Your task to perform on an android device: uninstall "Facebook Lite" Image 0: 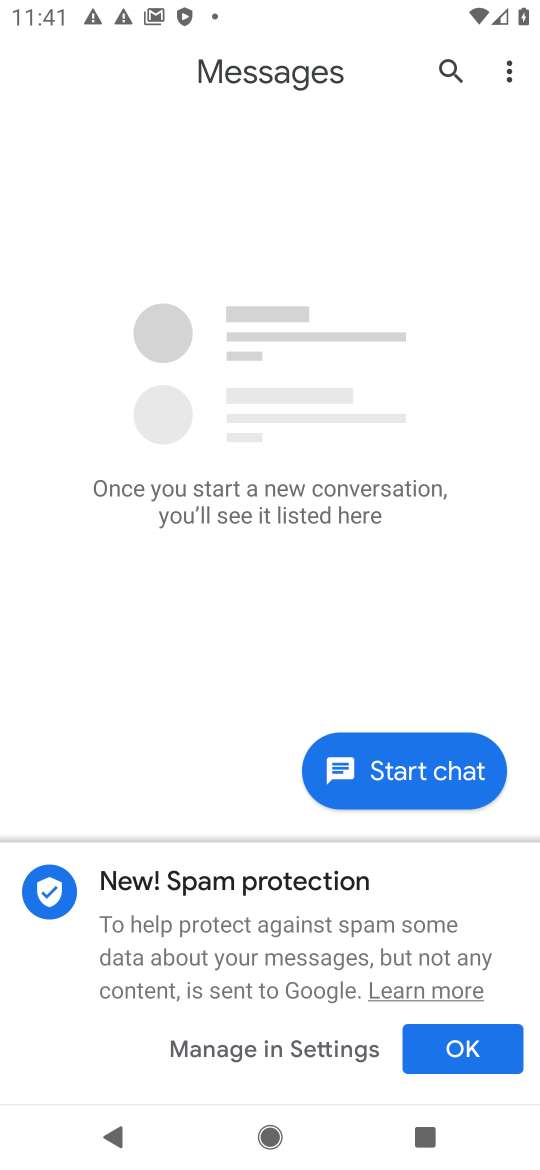
Step 0: press home button
Your task to perform on an android device: uninstall "Facebook Lite" Image 1: 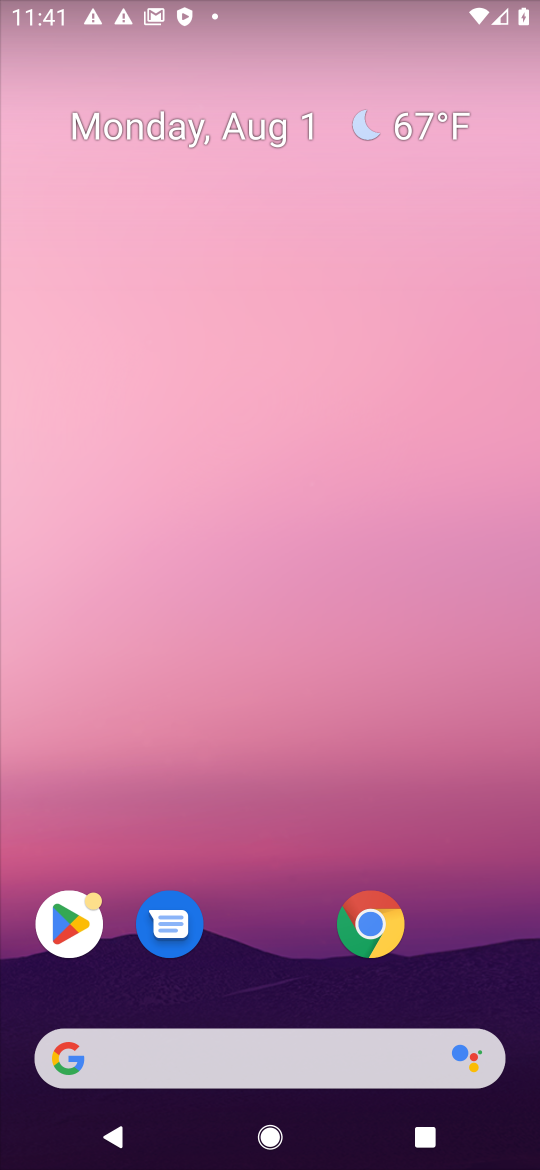
Step 1: click (62, 916)
Your task to perform on an android device: uninstall "Facebook Lite" Image 2: 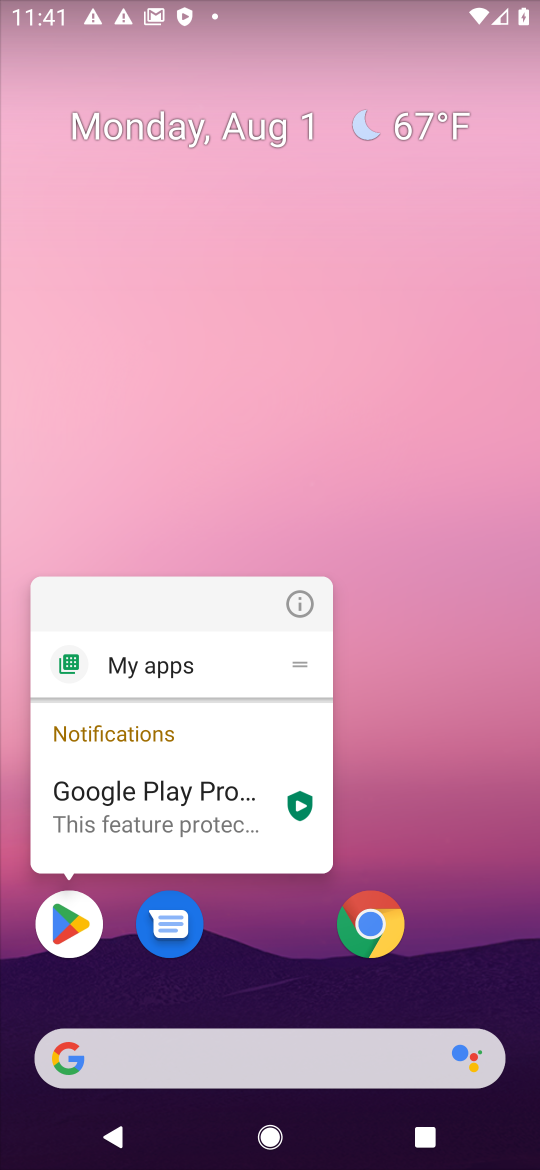
Step 2: click (62, 916)
Your task to perform on an android device: uninstall "Facebook Lite" Image 3: 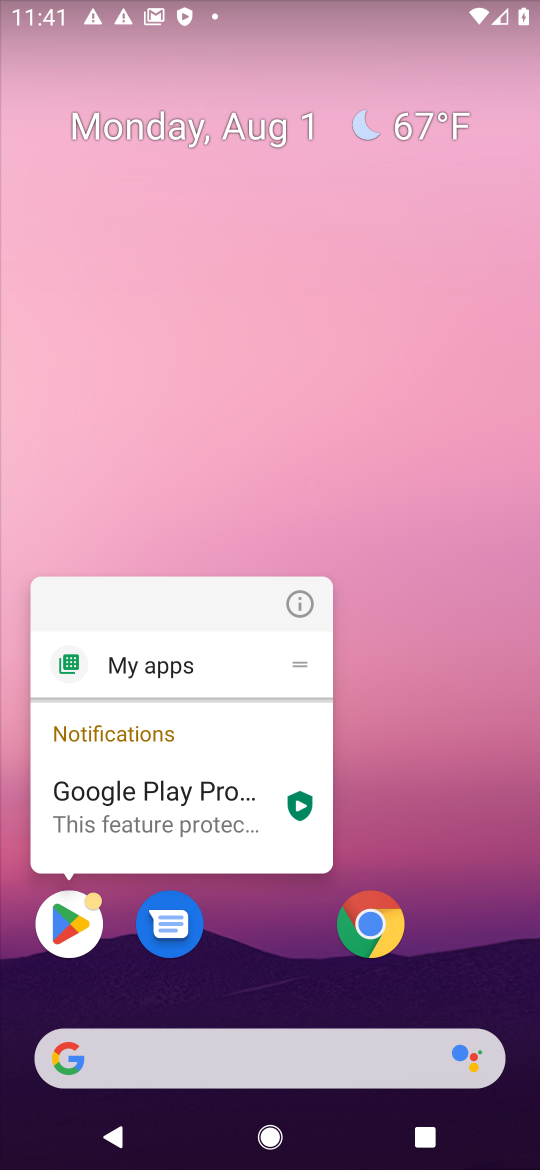
Step 3: click (68, 923)
Your task to perform on an android device: uninstall "Facebook Lite" Image 4: 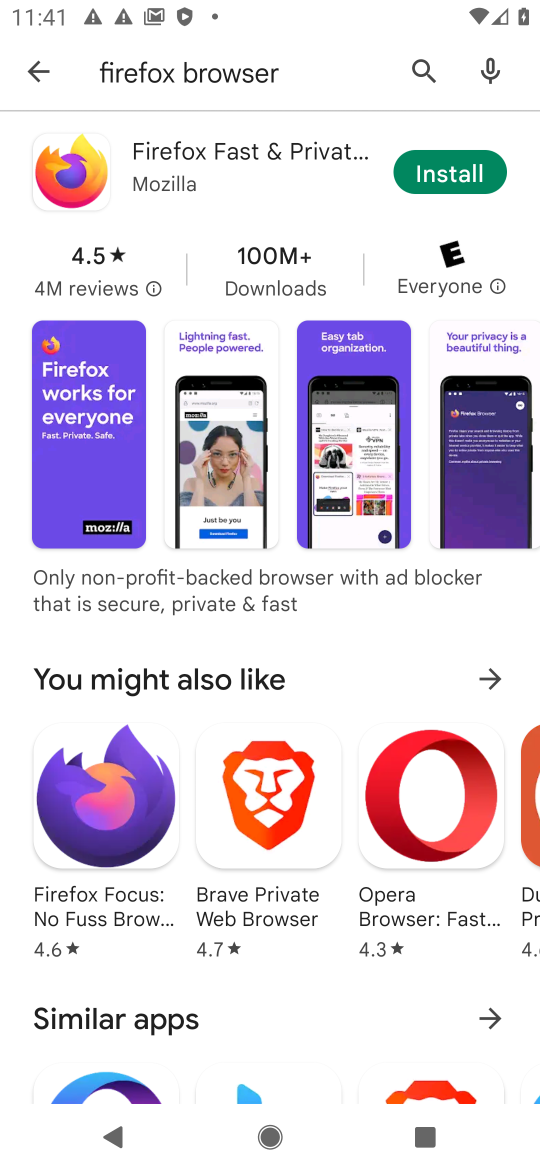
Step 4: click (422, 65)
Your task to perform on an android device: uninstall "Facebook Lite" Image 5: 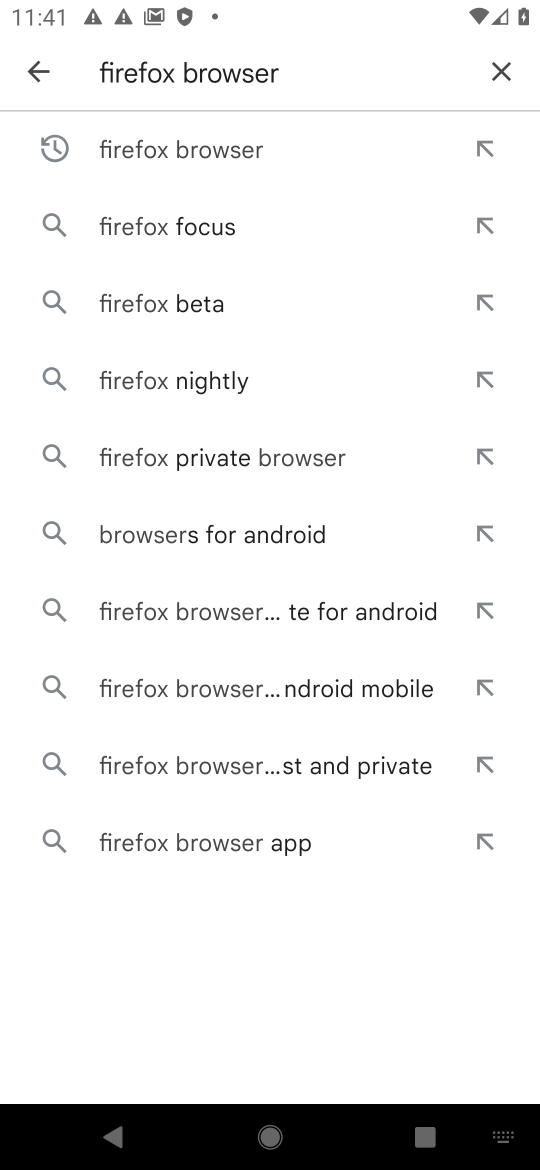
Step 5: click (498, 63)
Your task to perform on an android device: uninstall "Facebook Lite" Image 6: 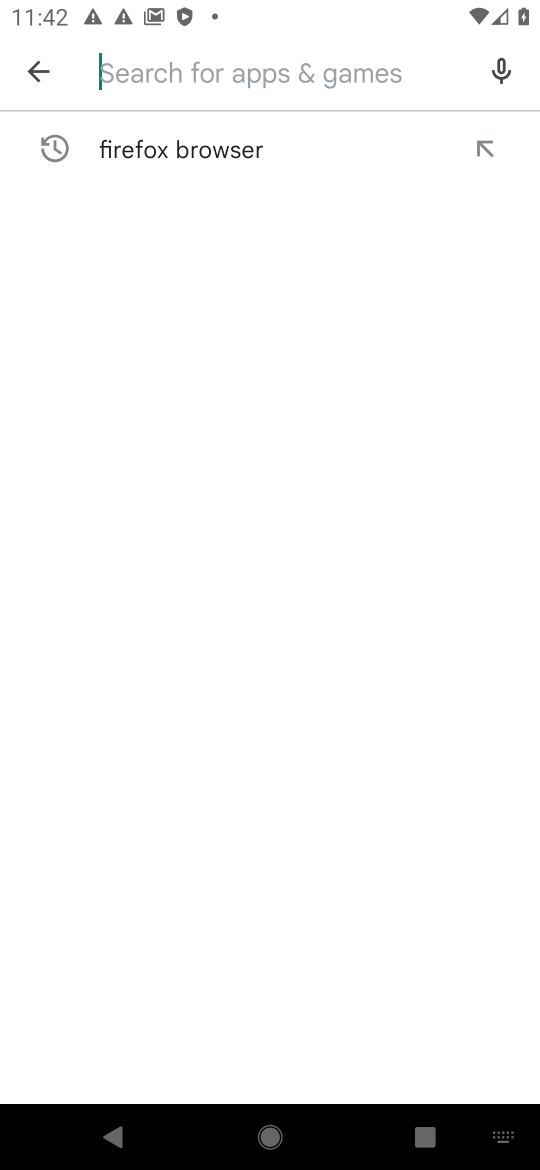
Step 6: type "Facebook Lite"
Your task to perform on an android device: uninstall "Facebook Lite" Image 7: 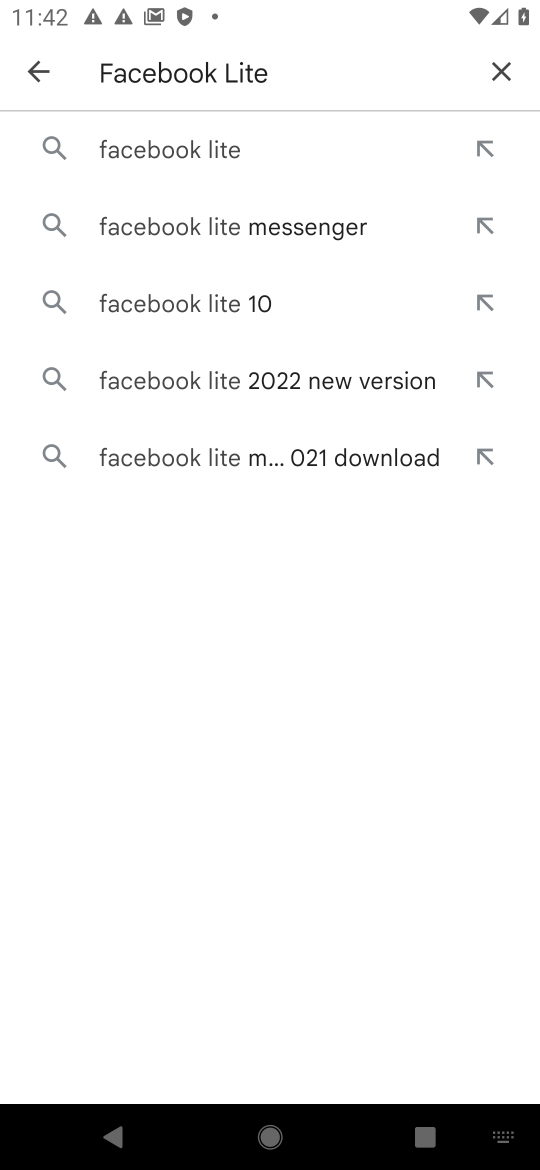
Step 7: click (261, 140)
Your task to perform on an android device: uninstall "Facebook Lite" Image 8: 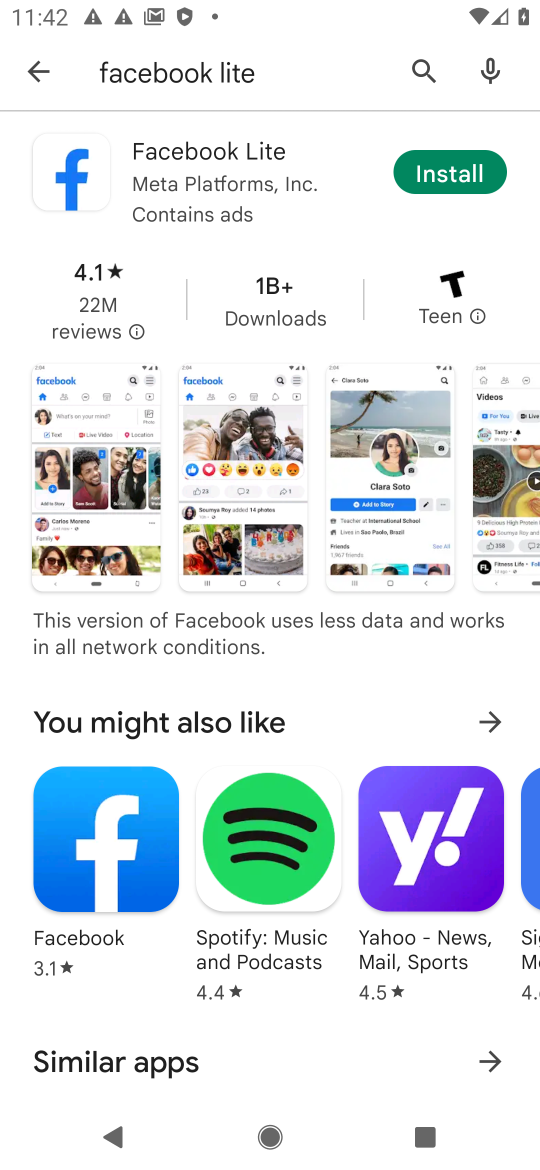
Step 8: task complete